Your task to perform on an android device: Go to calendar. Show me events next week Image 0: 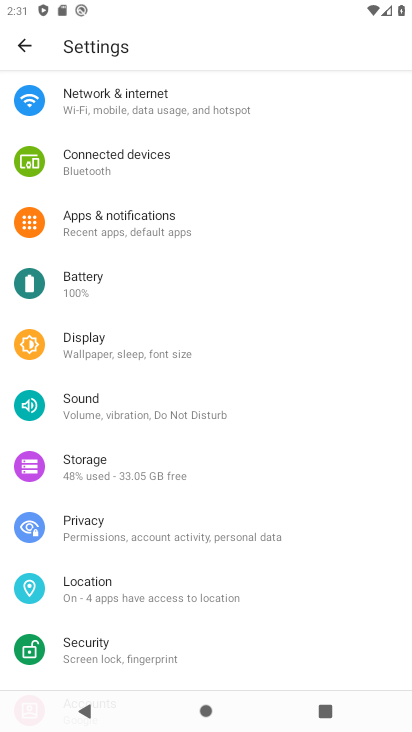
Step 0: press home button
Your task to perform on an android device: Go to calendar. Show me events next week Image 1: 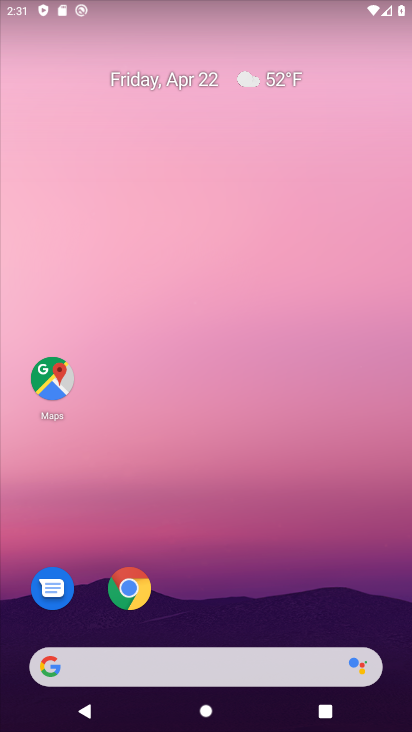
Step 1: drag from (294, 577) to (321, 4)
Your task to perform on an android device: Go to calendar. Show me events next week Image 2: 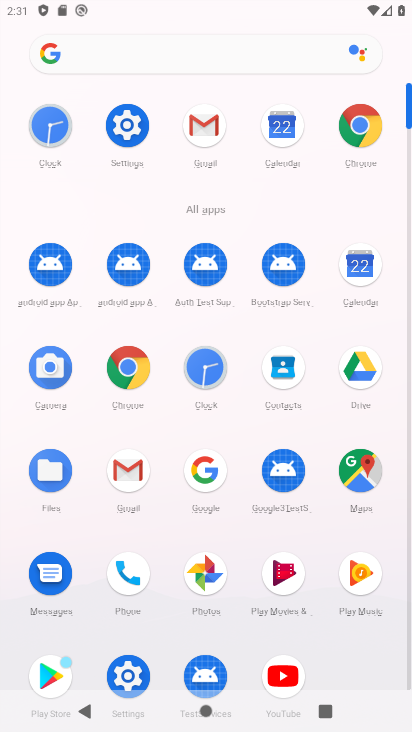
Step 2: click (358, 264)
Your task to perform on an android device: Go to calendar. Show me events next week Image 3: 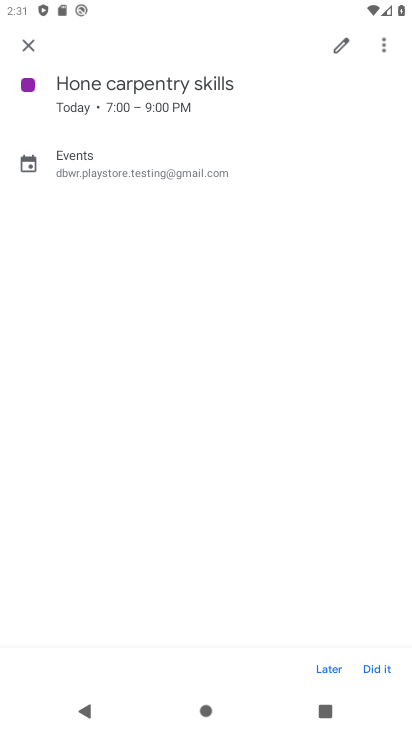
Step 3: click (31, 49)
Your task to perform on an android device: Go to calendar. Show me events next week Image 4: 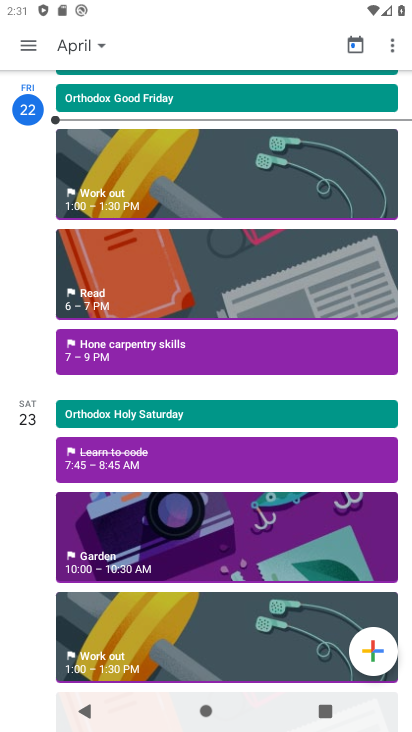
Step 4: click (102, 41)
Your task to perform on an android device: Go to calendar. Show me events next week Image 5: 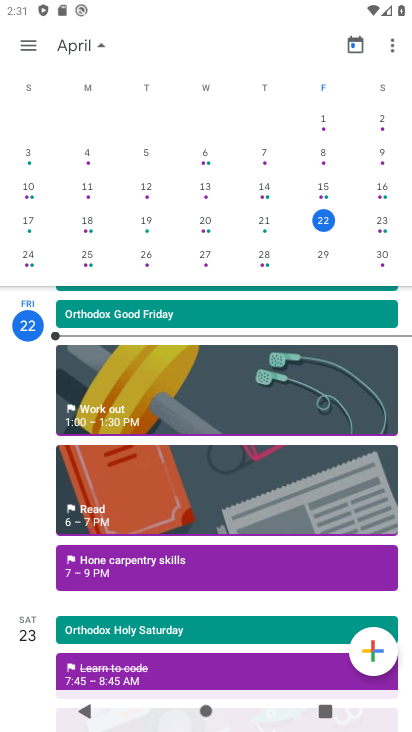
Step 5: click (204, 259)
Your task to perform on an android device: Go to calendar. Show me events next week Image 6: 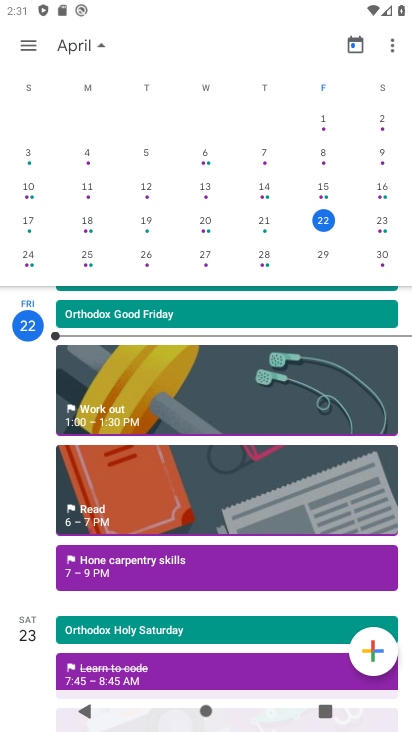
Step 6: click (204, 253)
Your task to perform on an android device: Go to calendar. Show me events next week Image 7: 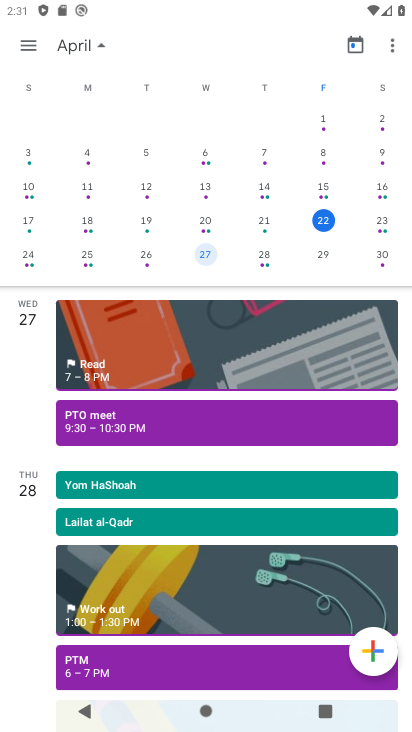
Step 7: click (173, 415)
Your task to perform on an android device: Go to calendar. Show me events next week Image 8: 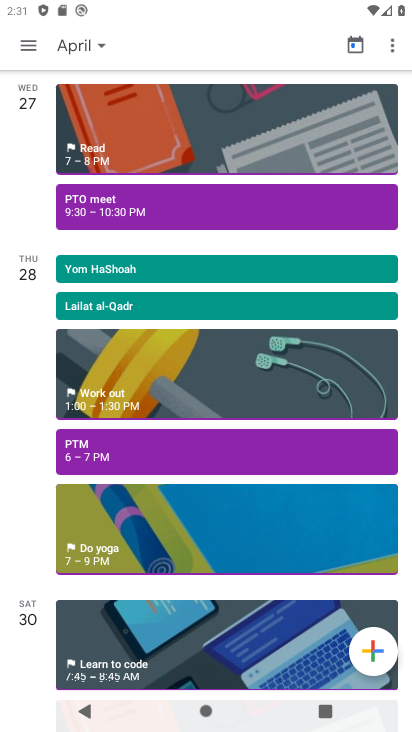
Step 8: click (33, 49)
Your task to perform on an android device: Go to calendar. Show me events next week Image 9: 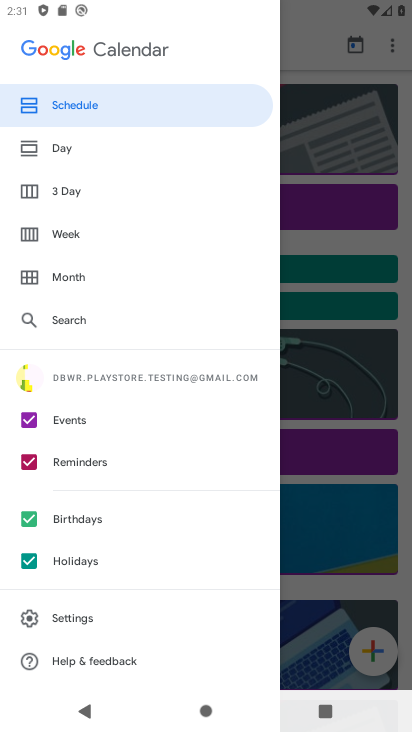
Step 9: click (25, 460)
Your task to perform on an android device: Go to calendar. Show me events next week Image 10: 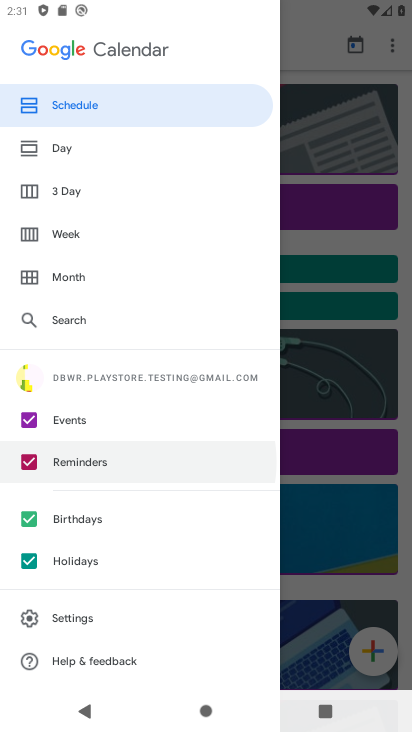
Step 10: click (33, 525)
Your task to perform on an android device: Go to calendar. Show me events next week Image 11: 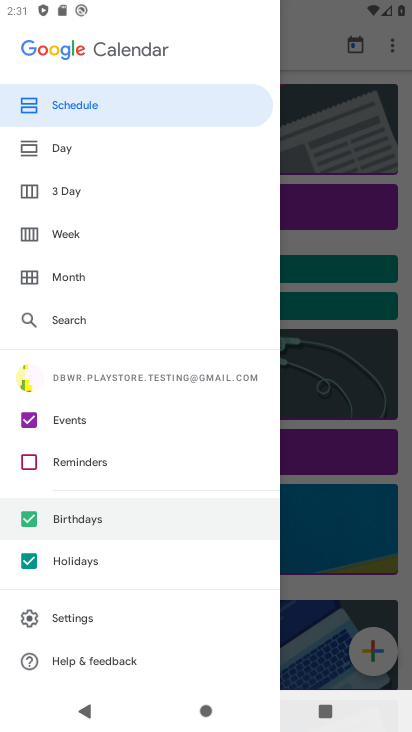
Step 11: click (33, 556)
Your task to perform on an android device: Go to calendar. Show me events next week Image 12: 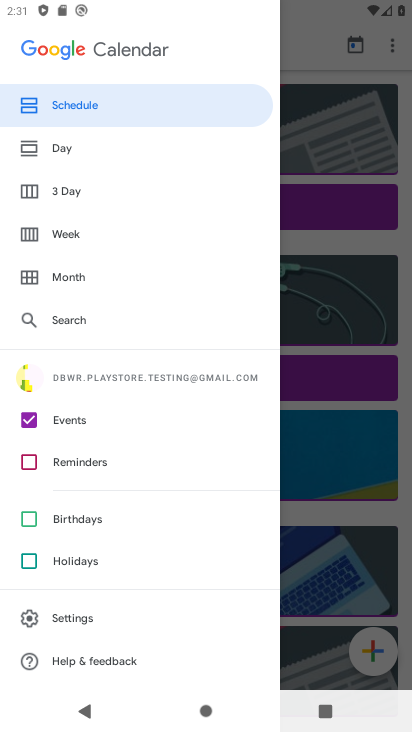
Step 12: click (53, 223)
Your task to perform on an android device: Go to calendar. Show me events next week Image 13: 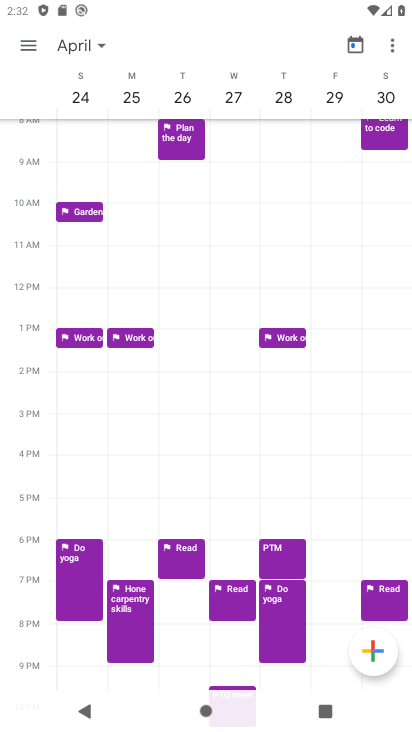
Step 13: task complete